Your task to perform on an android device: visit the assistant section in the google photos Image 0: 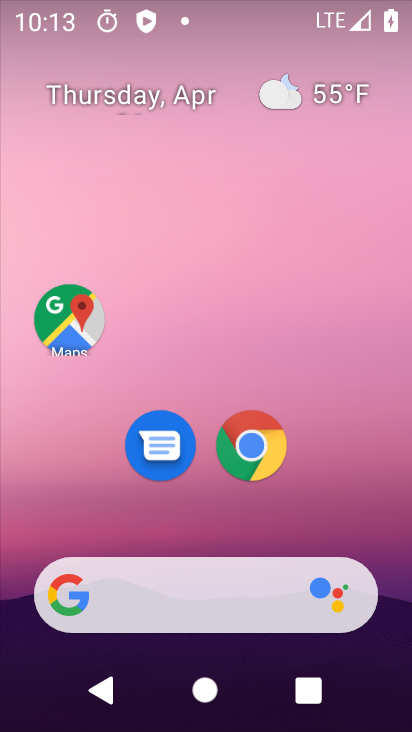
Step 0: drag from (360, 528) to (362, 26)
Your task to perform on an android device: visit the assistant section in the google photos Image 1: 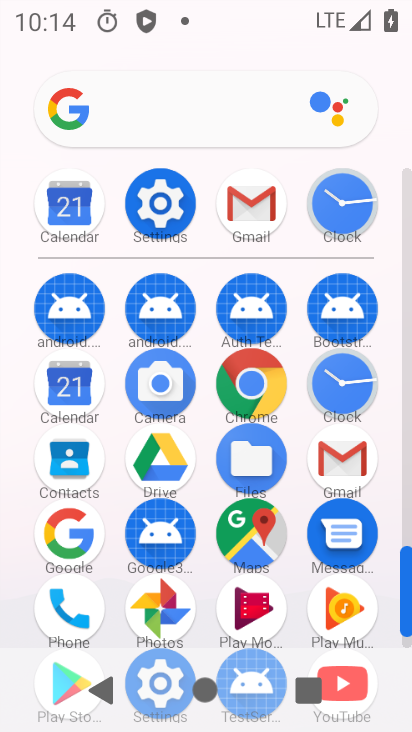
Step 1: click (161, 615)
Your task to perform on an android device: visit the assistant section in the google photos Image 2: 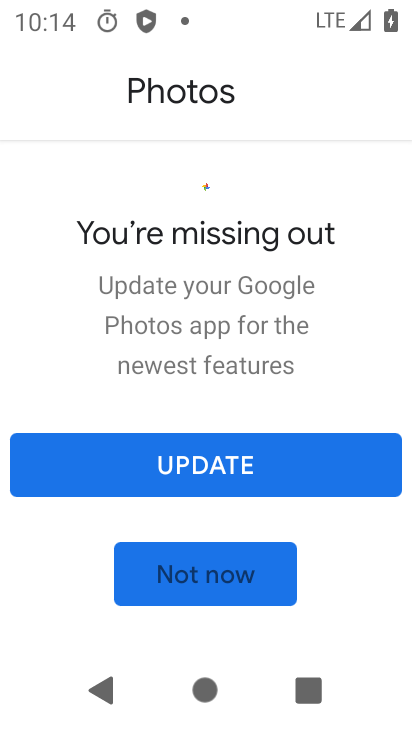
Step 2: click (163, 575)
Your task to perform on an android device: visit the assistant section in the google photos Image 3: 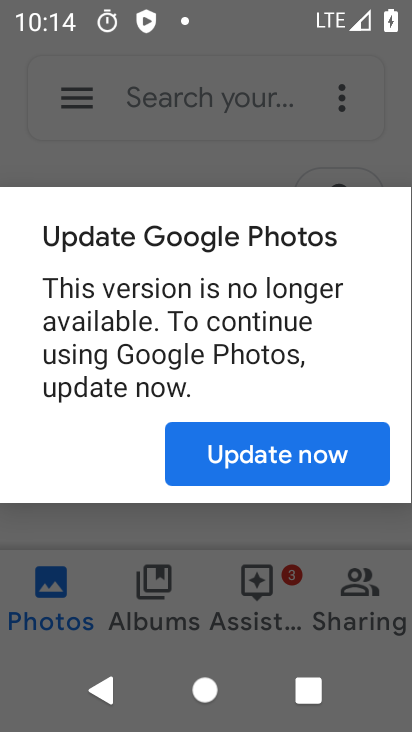
Step 3: click (266, 472)
Your task to perform on an android device: visit the assistant section in the google photos Image 4: 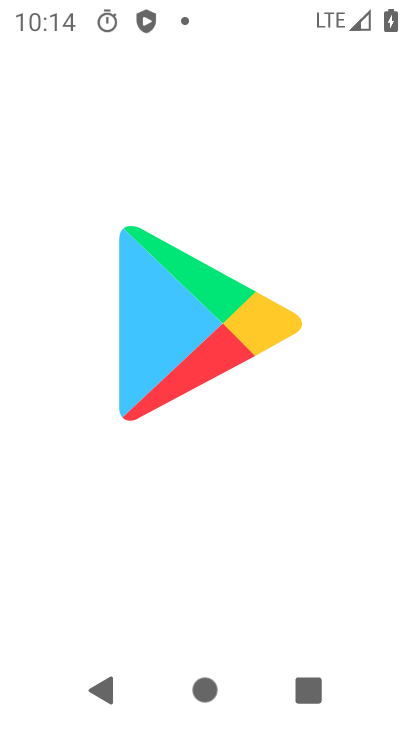
Step 4: click (241, 607)
Your task to perform on an android device: visit the assistant section in the google photos Image 5: 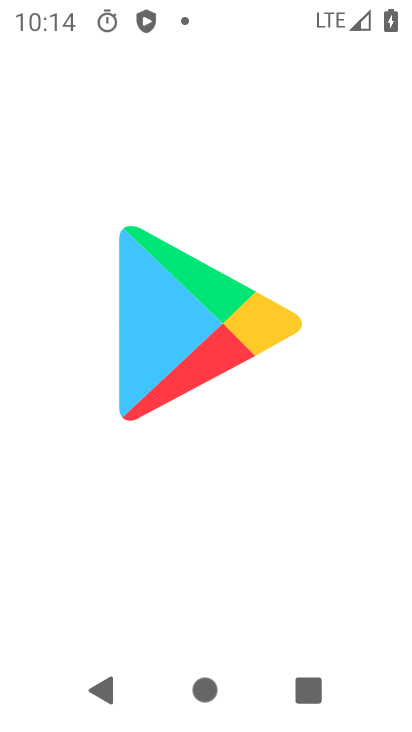
Step 5: drag from (241, 583) to (238, 527)
Your task to perform on an android device: visit the assistant section in the google photos Image 6: 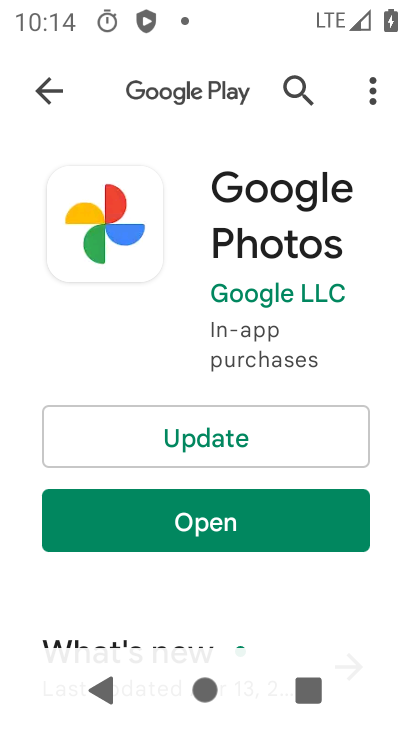
Step 6: click (188, 523)
Your task to perform on an android device: visit the assistant section in the google photos Image 7: 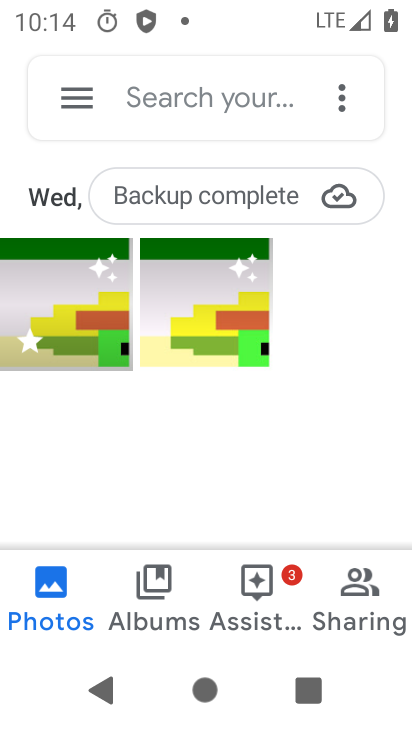
Step 7: click (226, 610)
Your task to perform on an android device: visit the assistant section in the google photos Image 8: 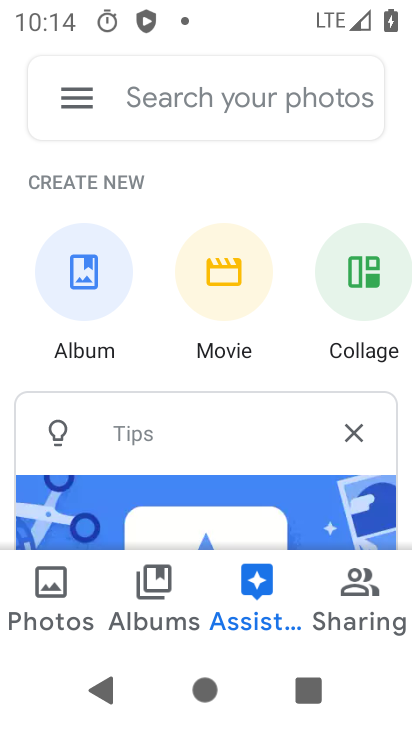
Step 8: task complete